Your task to perform on an android device: change the clock display to analog Image 0: 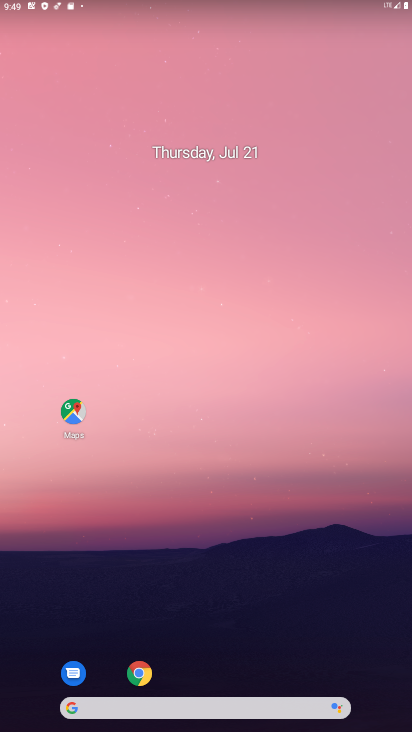
Step 0: drag from (239, 653) to (219, 202)
Your task to perform on an android device: change the clock display to analog Image 1: 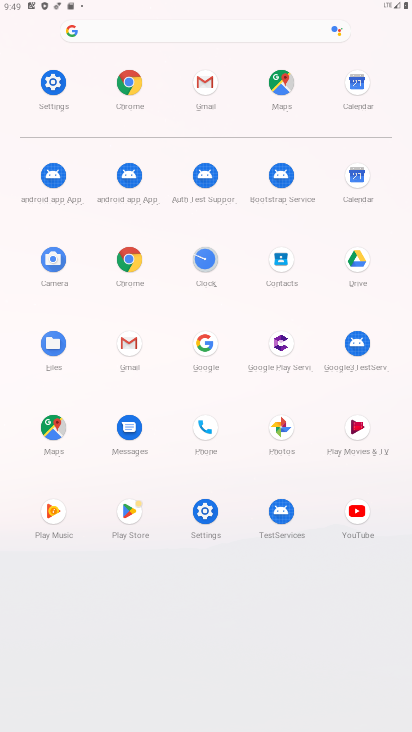
Step 1: click (36, 74)
Your task to perform on an android device: change the clock display to analog Image 2: 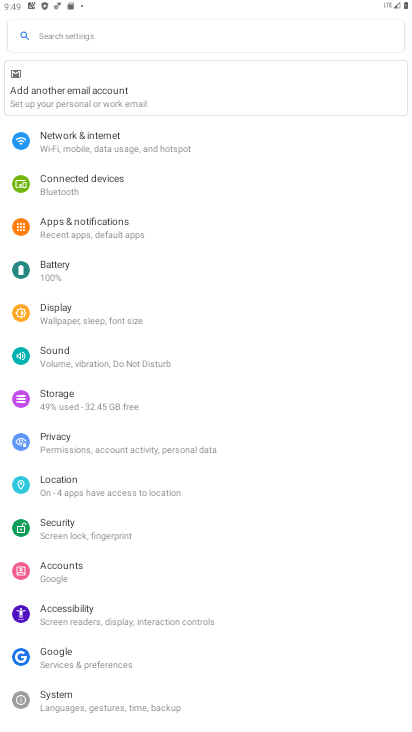
Step 2: press back button
Your task to perform on an android device: change the clock display to analog Image 3: 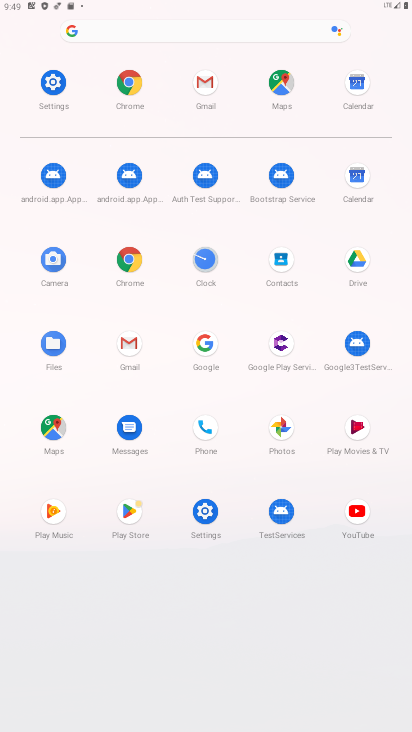
Step 3: click (211, 265)
Your task to perform on an android device: change the clock display to analog Image 4: 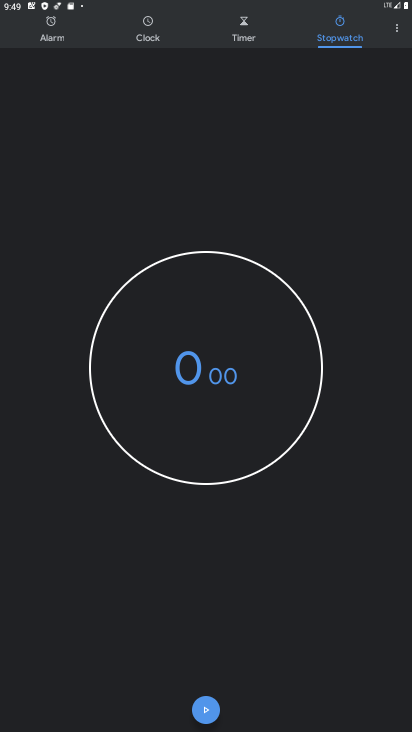
Step 4: click (399, 31)
Your task to perform on an android device: change the clock display to analog Image 5: 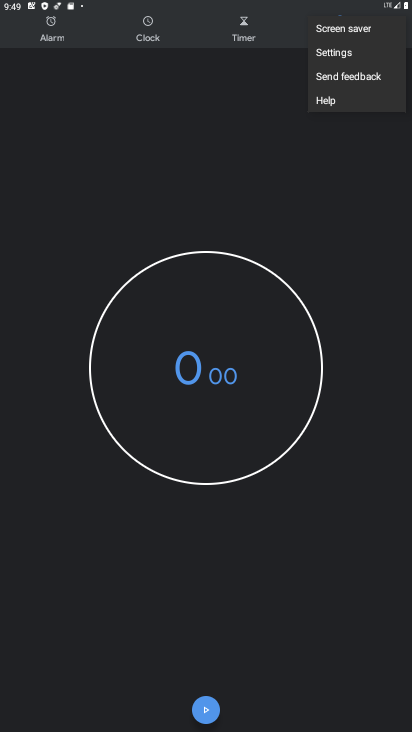
Step 5: click (357, 52)
Your task to perform on an android device: change the clock display to analog Image 6: 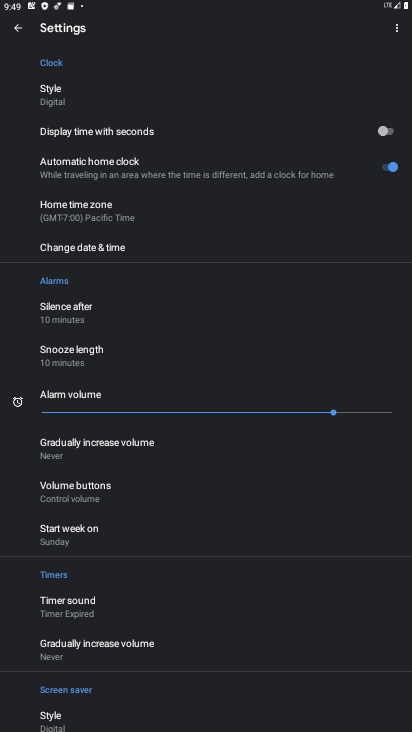
Step 6: click (72, 105)
Your task to perform on an android device: change the clock display to analog Image 7: 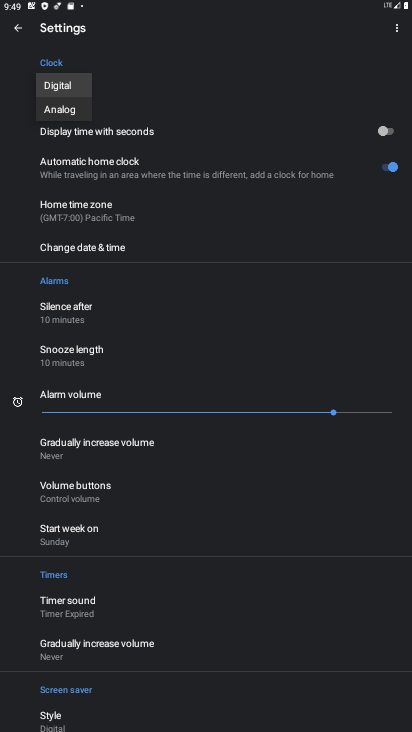
Step 7: click (57, 115)
Your task to perform on an android device: change the clock display to analog Image 8: 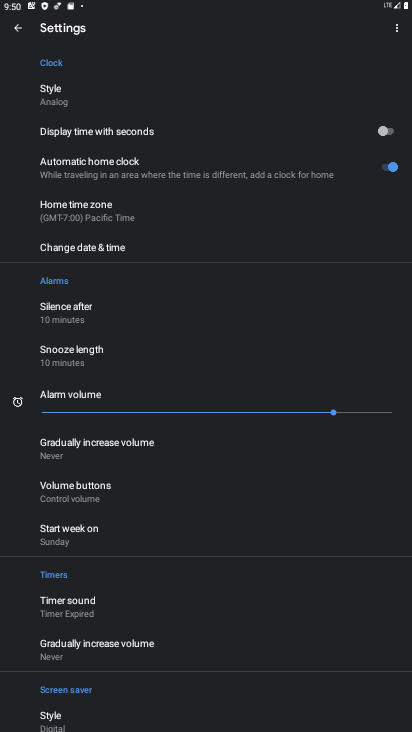
Step 8: task complete